Your task to perform on an android device: toggle sleep mode Image 0: 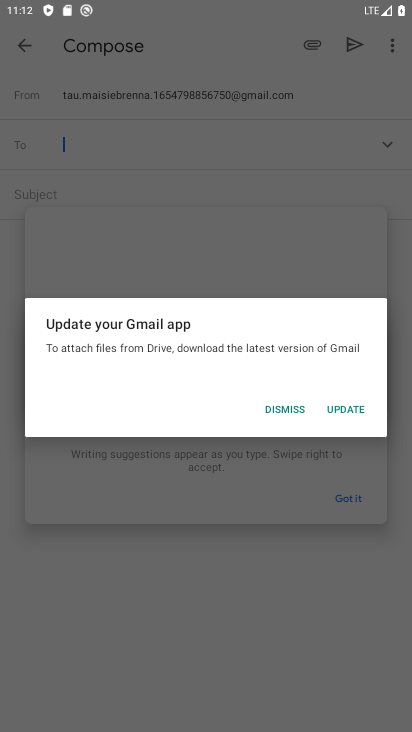
Step 0: press home button
Your task to perform on an android device: toggle sleep mode Image 1: 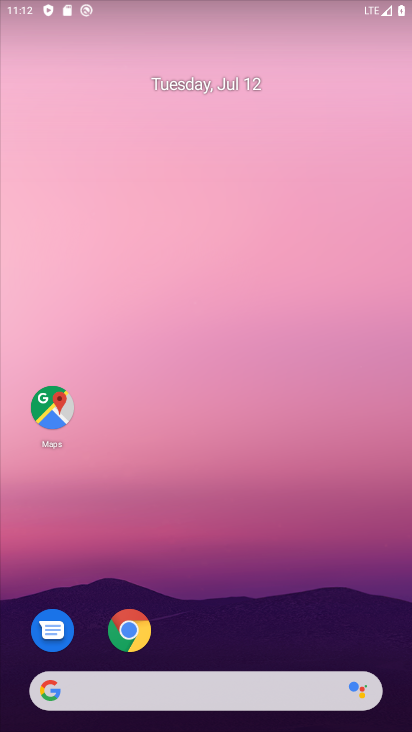
Step 1: drag from (392, 688) to (279, 43)
Your task to perform on an android device: toggle sleep mode Image 2: 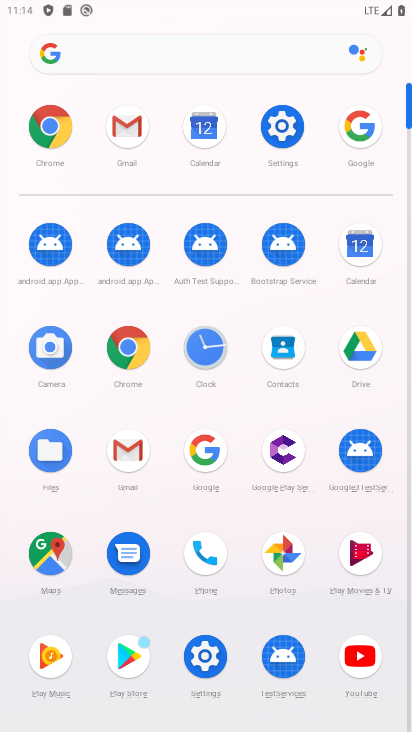
Step 2: click (226, 660)
Your task to perform on an android device: toggle sleep mode Image 3: 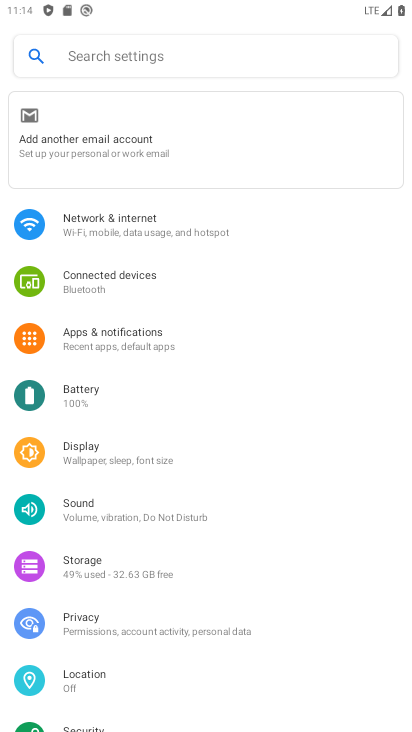
Step 3: task complete